Your task to perform on an android device: What's the weather today? Image 0: 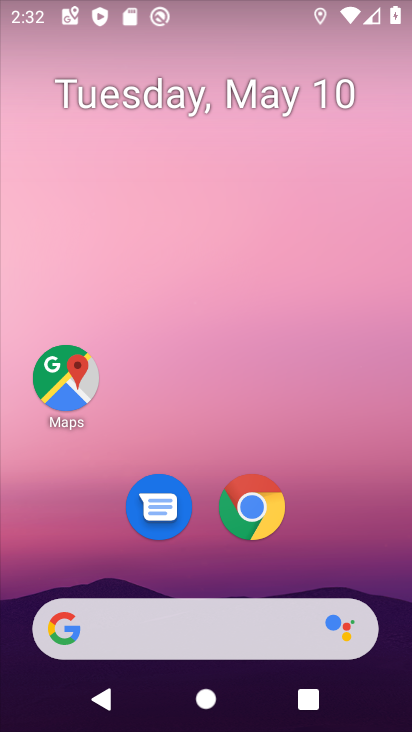
Step 0: drag from (230, 716) to (228, 161)
Your task to perform on an android device: What's the weather today? Image 1: 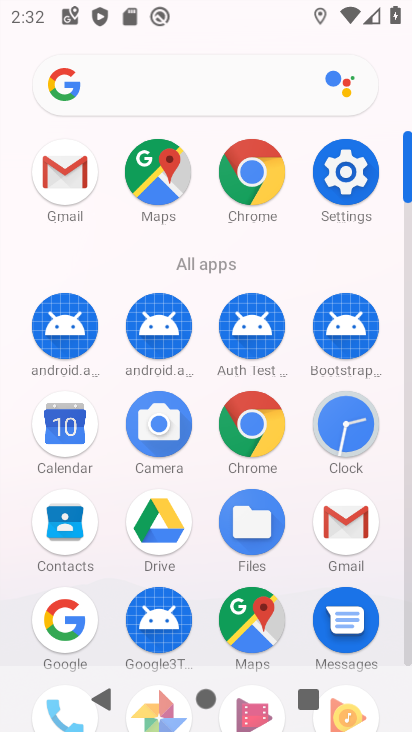
Step 1: click (67, 625)
Your task to perform on an android device: What's the weather today? Image 2: 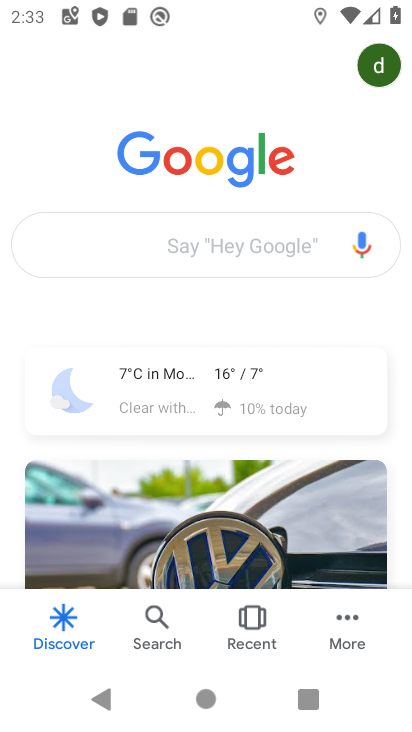
Step 2: click (195, 381)
Your task to perform on an android device: What's the weather today? Image 3: 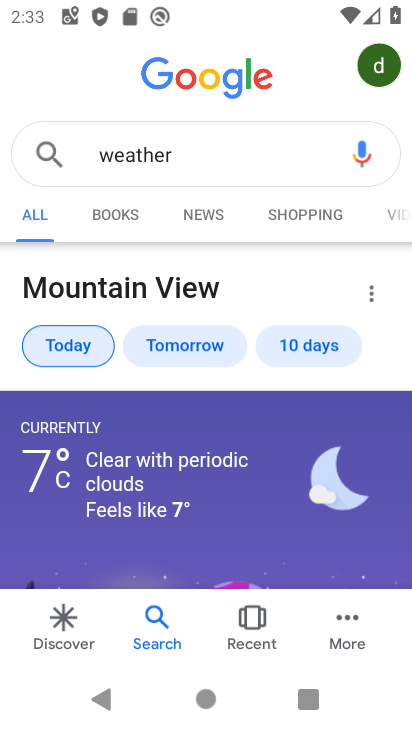
Step 3: click (77, 344)
Your task to perform on an android device: What's the weather today? Image 4: 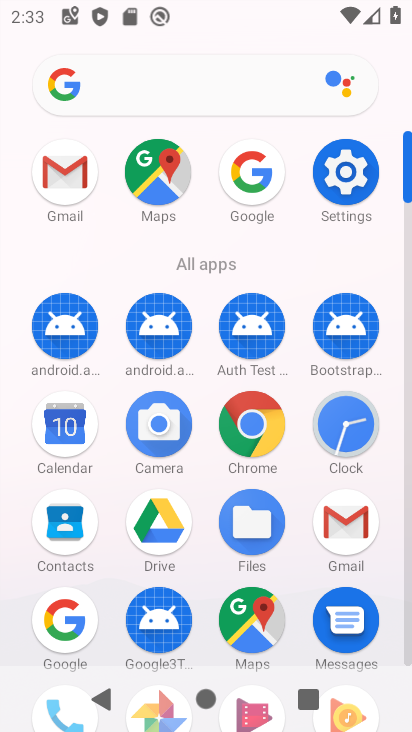
Step 4: task complete